Your task to perform on an android device: turn off location Image 0: 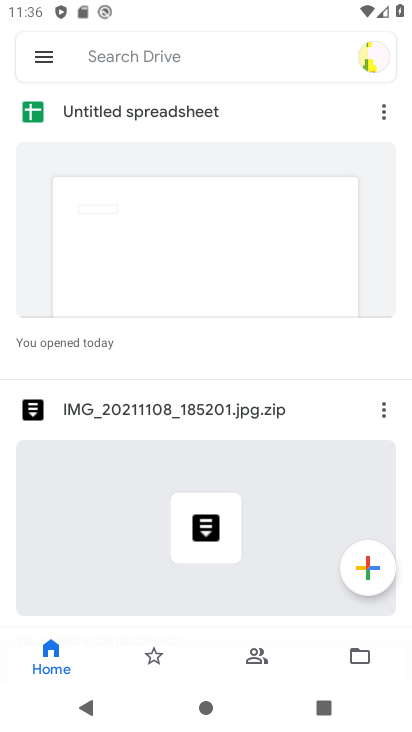
Step 0: press home button
Your task to perform on an android device: turn off location Image 1: 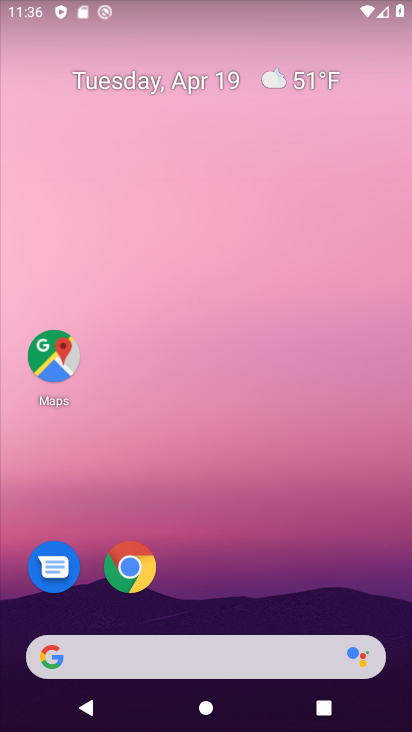
Step 1: drag from (184, 600) to (324, 53)
Your task to perform on an android device: turn off location Image 2: 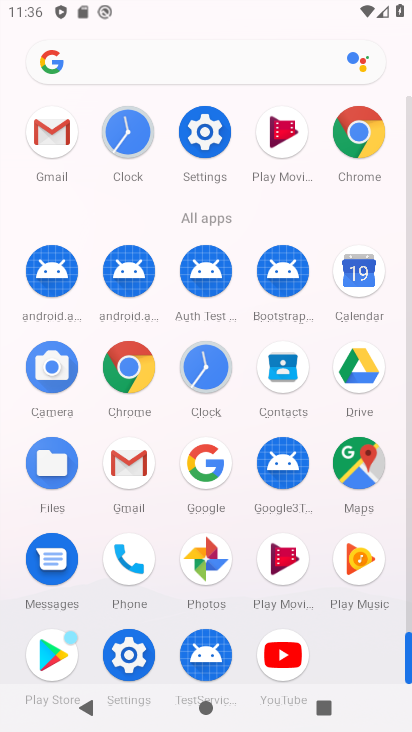
Step 2: click (131, 646)
Your task to perform on an android device: turn off location Image 3: 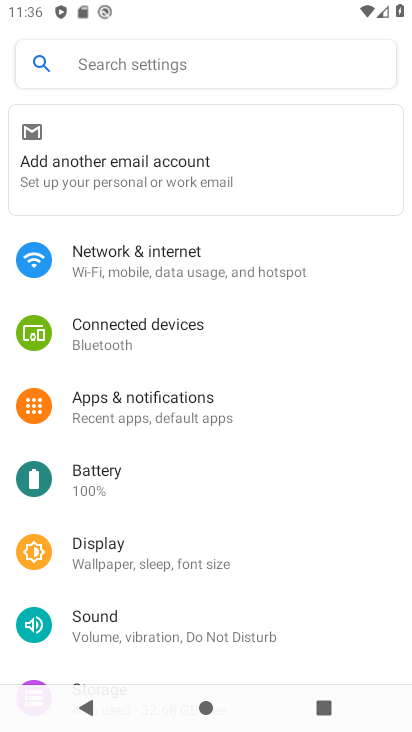
Step 3: drag from (129, 574) to (211, 259)
Your task to perform on an android device: turn off location Image 4: 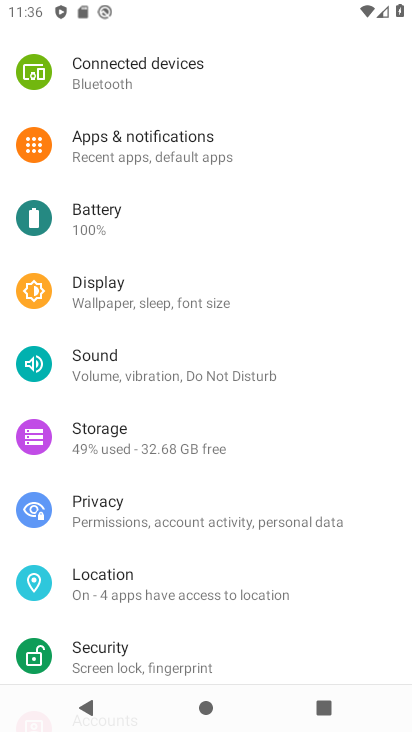
Step 4: click (116, 581)
Your task to perform on an android device: turn off location Image 5: 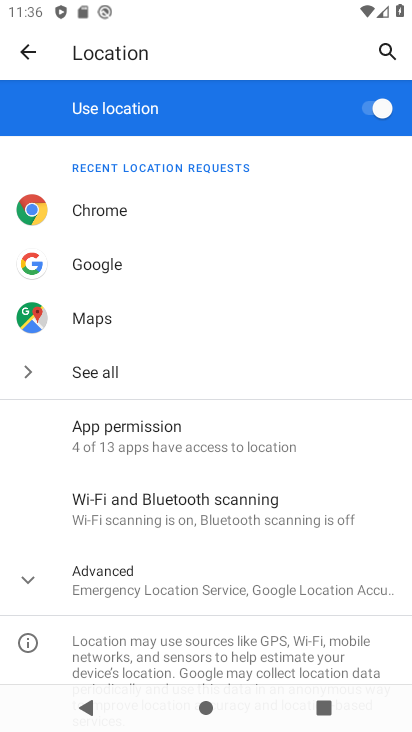
Step 5: click (360, 106)
Your task to perform on an android device: turn off location Image 6: 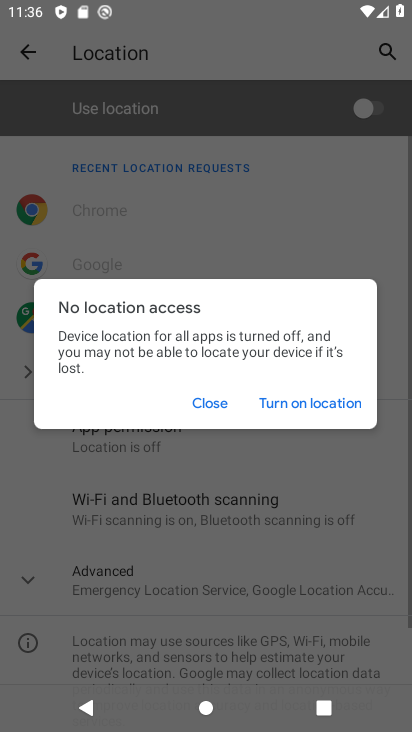
Step 6: task complete